Your task to perform on an android device: toggle wifi Image 0: 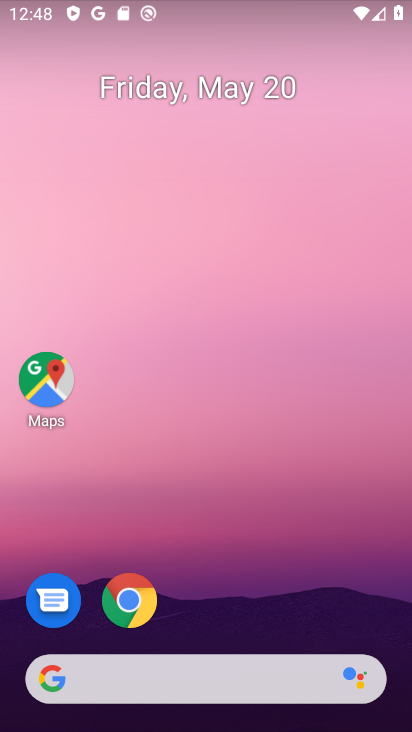
Step 0: click (136, 30)
Your task to perform on an android device: toggle wifi Image 1: 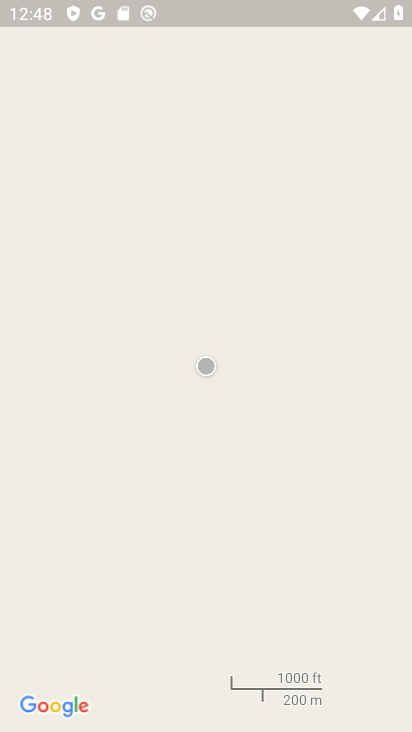
Step 1: press home button
Your task to perform on an android device: toggle wifi Image 2: 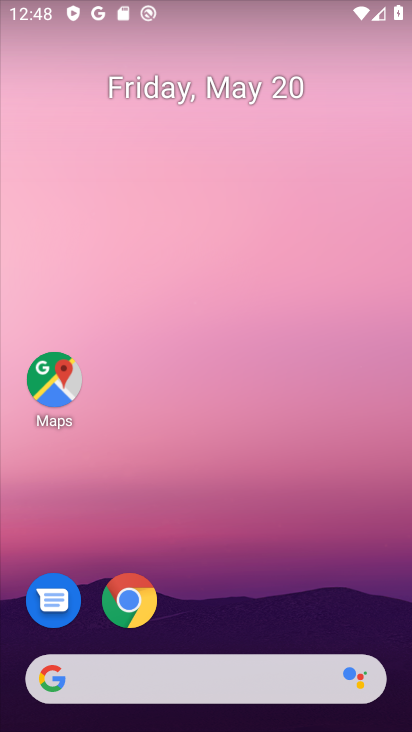
Step 2: drag from (230, 681) to (189, 10)
Your task to perform on an android device: toggle wifi Image 3: 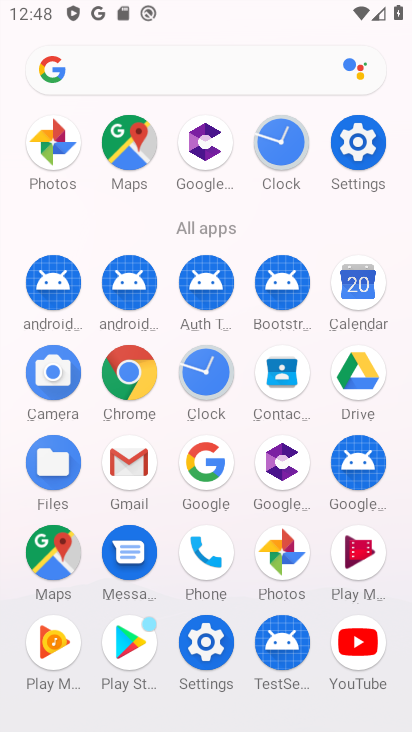
Step 3: click (369, 146)
Your task to perform on an android device: toggle wifi Image 4: 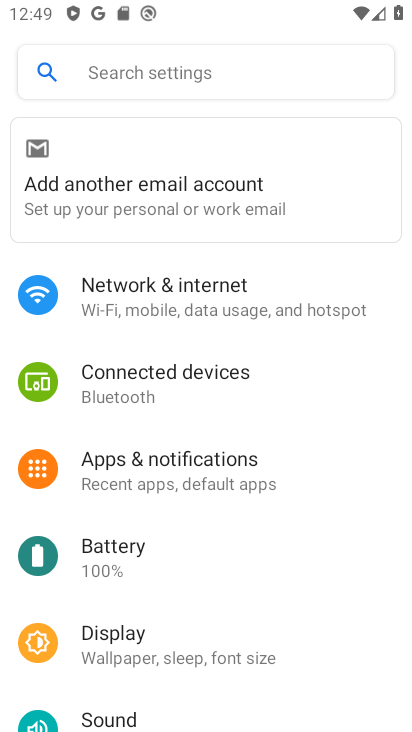
Step 4: click (220, 334)
Your task to perform on an android device: toggle wifi Image 5: 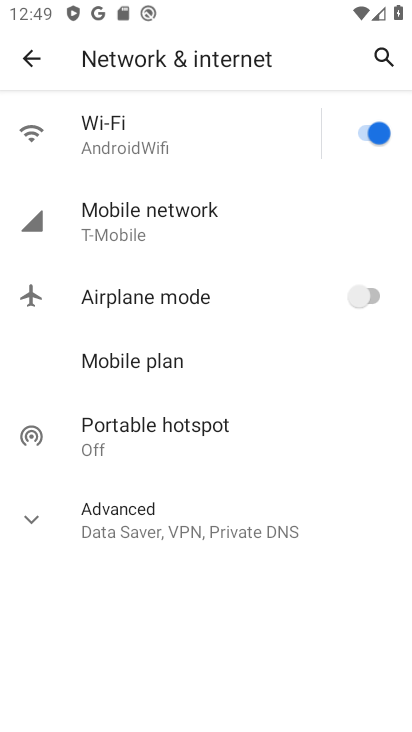
Step 5: click (371, 130)
Your task to perform on an android device: toggle wifi Image 6: 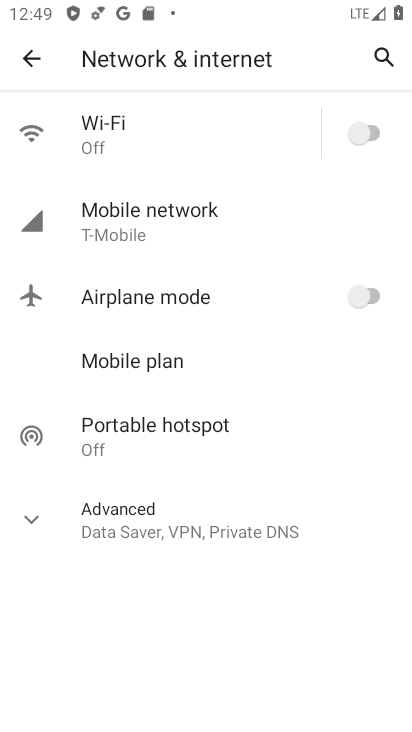
Step 6: task complete